Your task to perform on an android device: turn notification dots off Image 0: 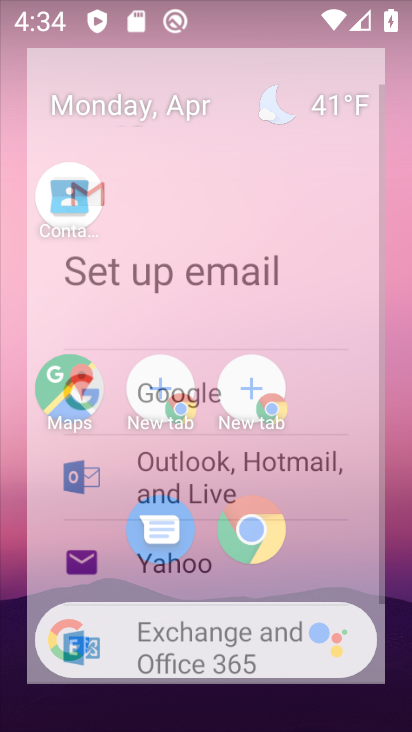
Step 0: click (64, 383)
Your task to perform on an android device: turn notification dots off Image 1: 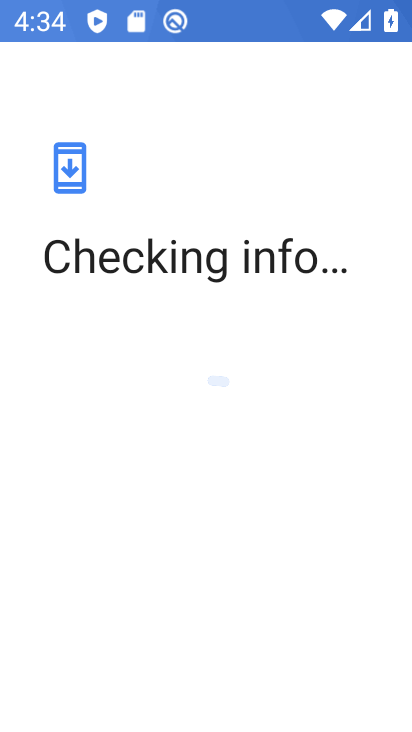
Step 1: press home button
Your task to perform on an android device: turn notification dots off Image 2: 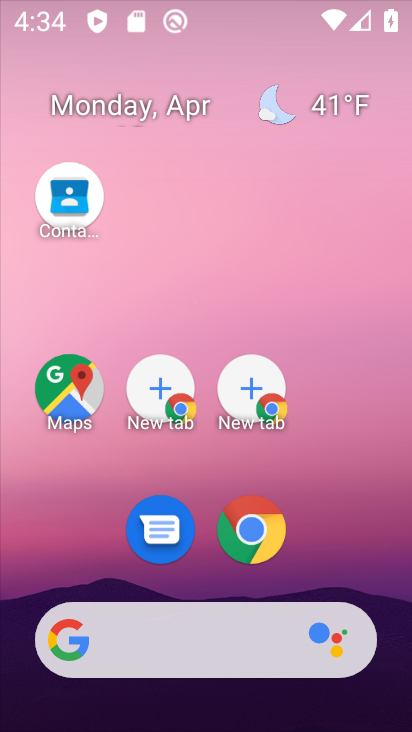
Step 2: drag from (212, 595) to (250, 107)
Your task to perform on an android device: turn notification dots off Image 3: 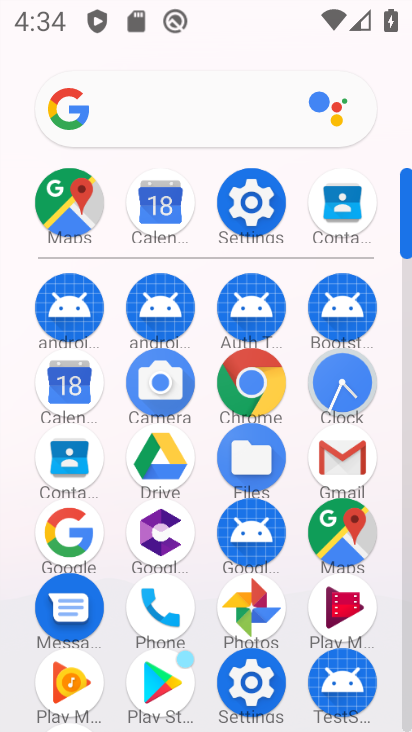
Step 3: click (253, 215)
Your task to perform on an android device: turn notification dots off Image 4: 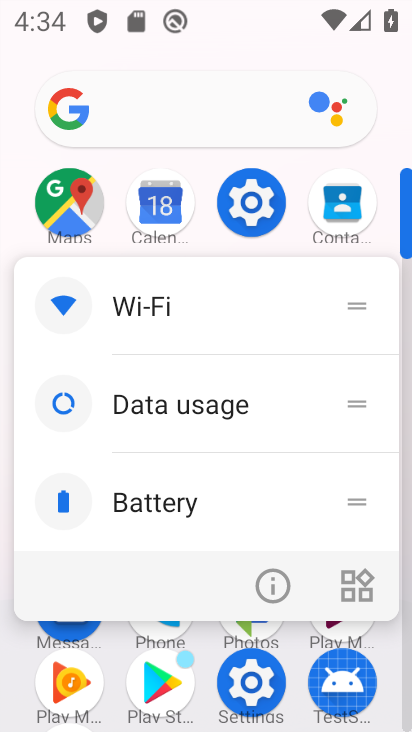
Step 4: click (250, 203)
Your task to perform on an android device: turn notification dots off Image 5: 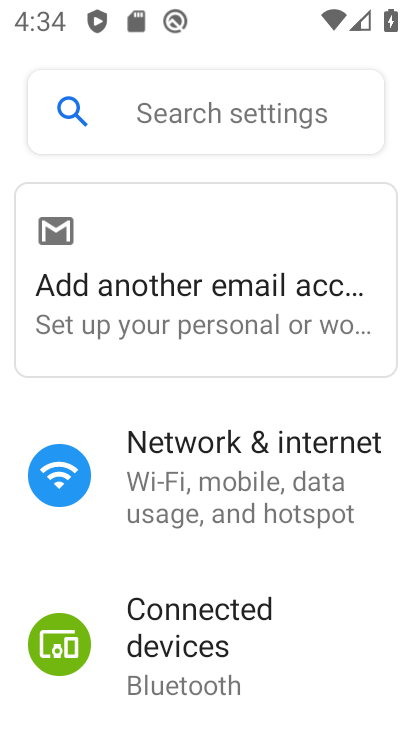
Step 5: drag from (216, 667) to (307, 146)
Your task to perform on an android device: turn notification dots off Image 6: 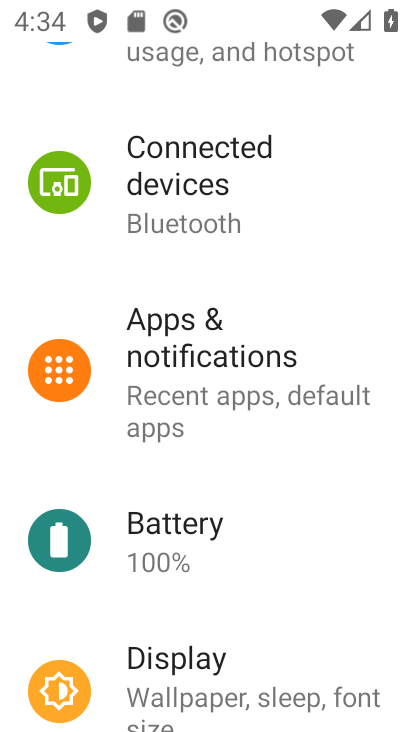
Step 6: click (189, 372)
Your task to perform on an android device: turn notification dots off Image 7: 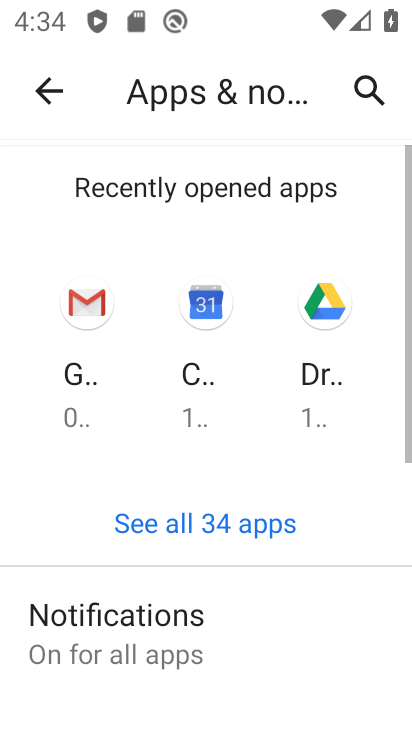
Step 7: drag from (147, 650) to (263, 101)
Your task to perform on an android device: turn notification dots off Image 8: 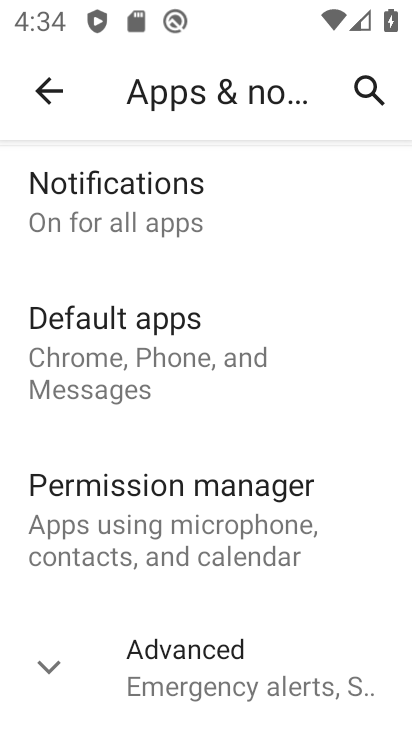
Step 8: click (185, 206)
Your task to perform on an android device: turn notification dots off Image 9: 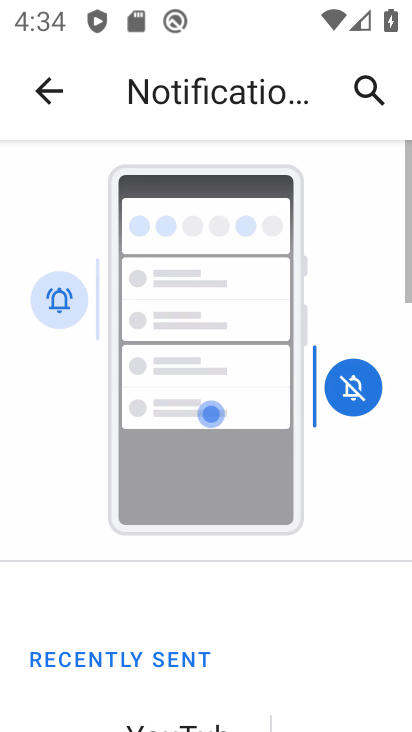
Step 9: drag from (204, 599) to (297, 78)
Your task to perform on an android device: turn notification dots off Image 10: 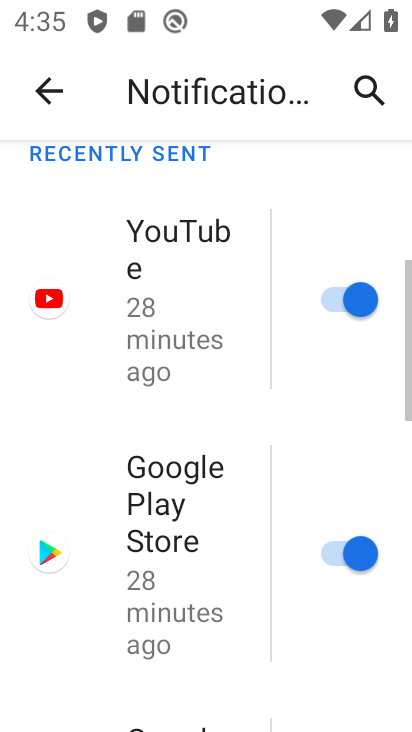
Step 10: drag from (202, 548) to (272, 79)
Your task to perform on an android device: turn notification dots off Image 11: 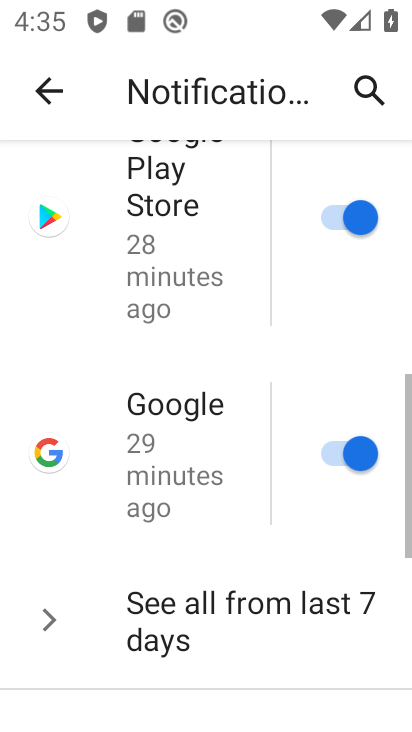
Step 11: drag from (141, 645) to (257, 208)
Your task to perform on an android device: turn notification dots off Image 12: 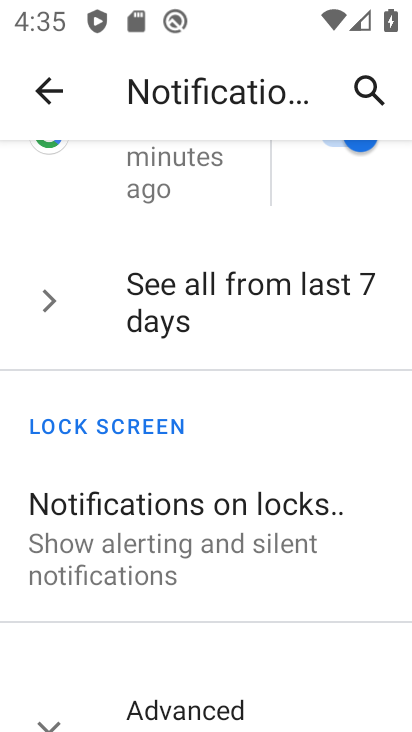
Step 12: drag from (202, 648) to (297, 116)
Your task to perform on an android device: turn notification dots off Image 13: 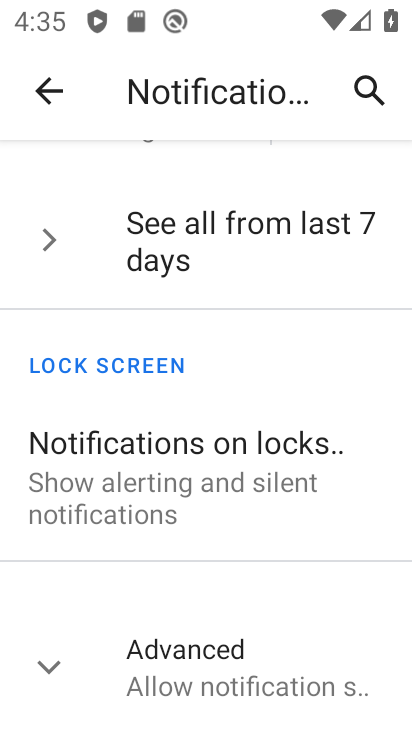
Step 13: click (204, 686)
Your task to perform on an android device: turn notification dots off Image 14: 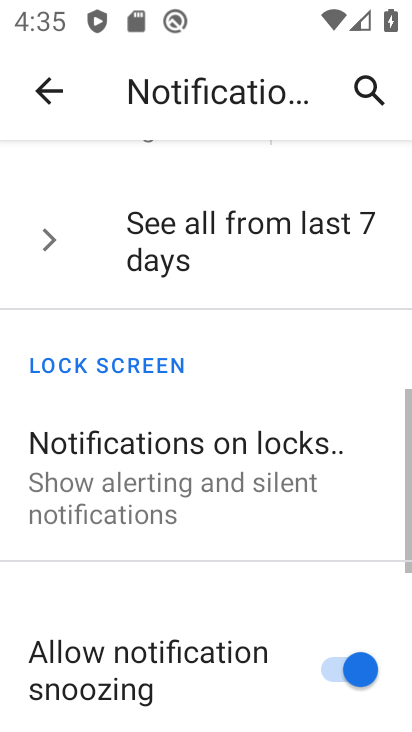
Step 14: drag from (208, 645) to (316, 169)
Your task to perform on an android device: turn notification dots off Image 15: 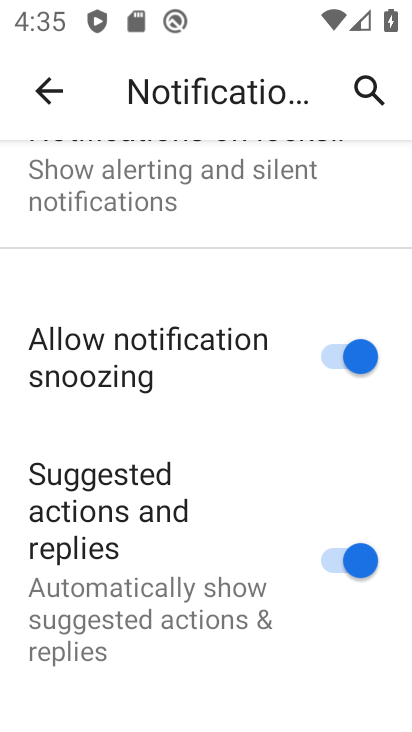
Step 15: drag from (181, 677) to (267, 154)
Your task to perform on an android device: turn notification dots off Image 16: 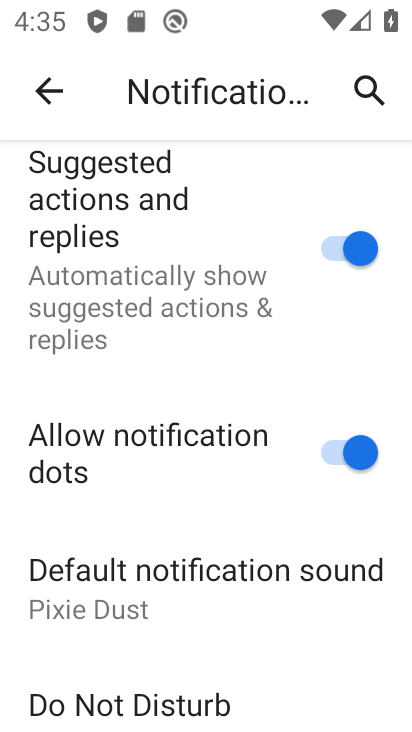
Step 16: click (355, 447)
Your task to perform on an android device: turn notification dots off Image 17: 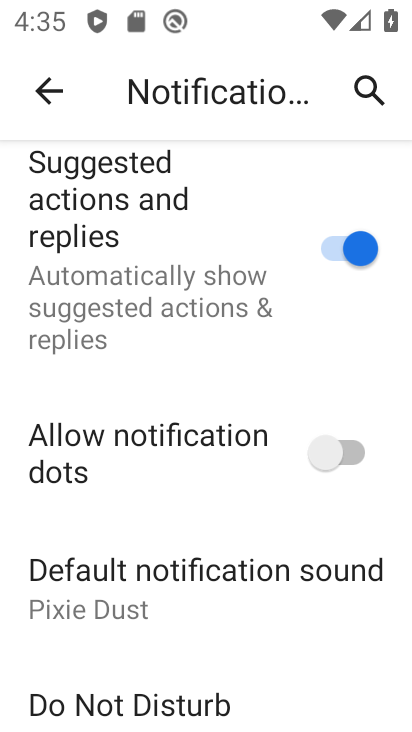
Step 17: task complete